Your task to perform on an android device: clear all cookies in the chrome app Image 0: 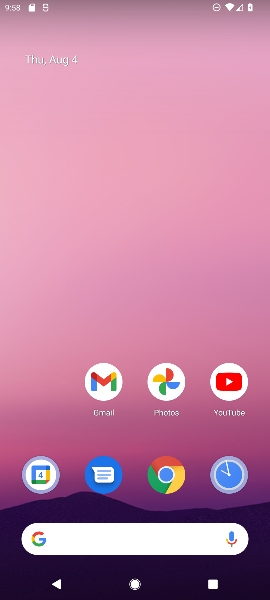
Step 0: drag from (138, 514) to (130, 173)
Your task to perform on an android device: clear all cookies in the chrome app Image 1: 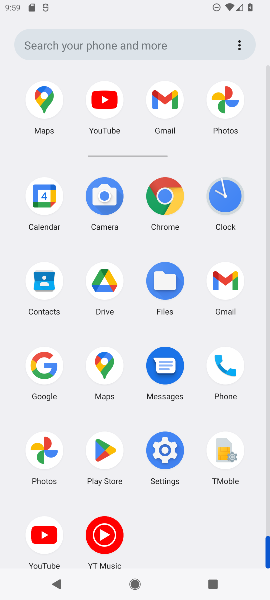
Step 1: click (161, 194)
Your task to perform on an android device: clear all cookies in the chrome app Image 2: 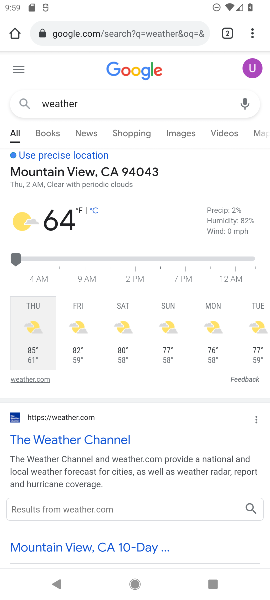
Step 2: drag from (143, 458) to (152, 259)
Your task to perform on an android device: clear all cookies in the chrome app Image 3: 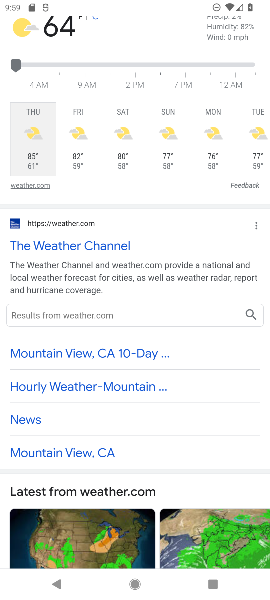
Step 3: drag from (169, 493) to (196, 240)
Your task to perform on an android device: clear all cookies in the chrome app Image 4: 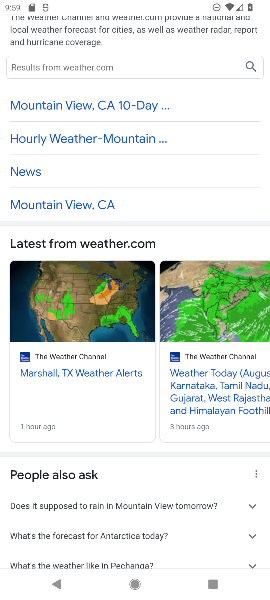
Step 4: drag from (163, 178) to (122, 598)
Your task to perform on an android device: clear all cookies in the chrome app Image 5: 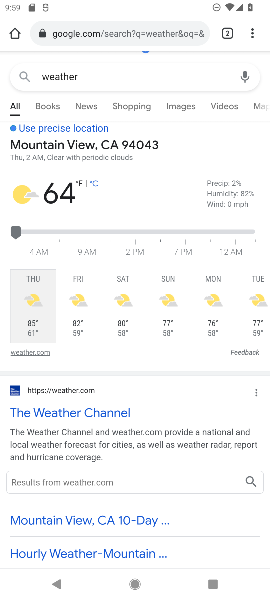
Step 5: drag from (251, 31) to (161, 167)
Your task to perform on an android device: clear all cookies in the chrome app Image 6: 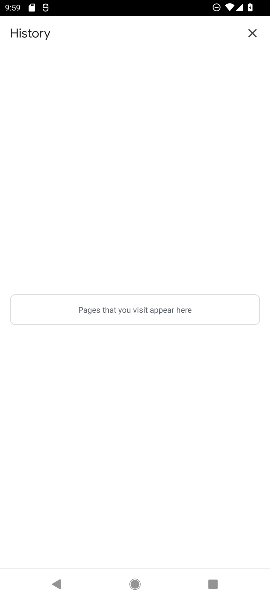
Step 6: click (138, 396)
Your task to perform on an android device: clear all cookies in the chrome app Image 7: 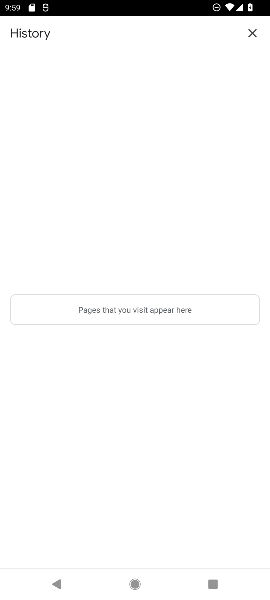
Step 7: click (151, 315)
Your task to perform on an android device: clear all cookies in the chrome app Image 8: 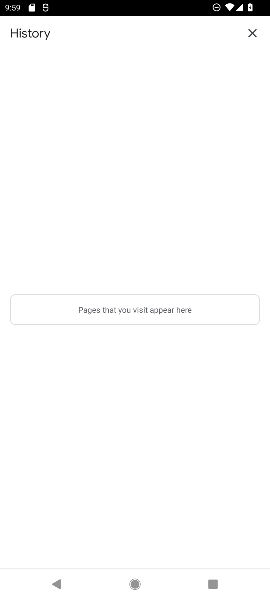
Step 8: click (150, 304)
Your task to perform on an android device: clear all cookies in the chrome app Image 9: 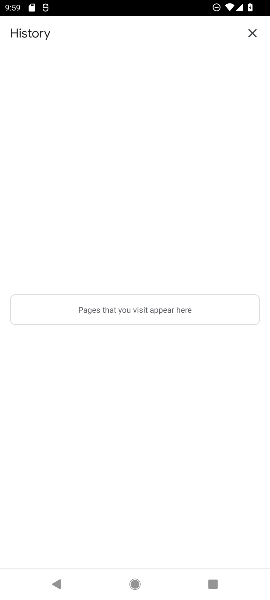
Step 9: task complete